Your task to perform on an android device: Open wifi settings Image 0: 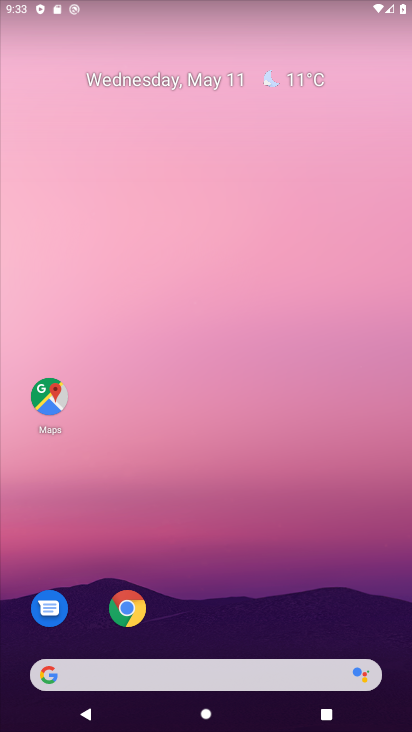
Step 0: drag from (205, 654) to (343, 160)
Your task to perform on an android device: Open wifi settings Image 1: 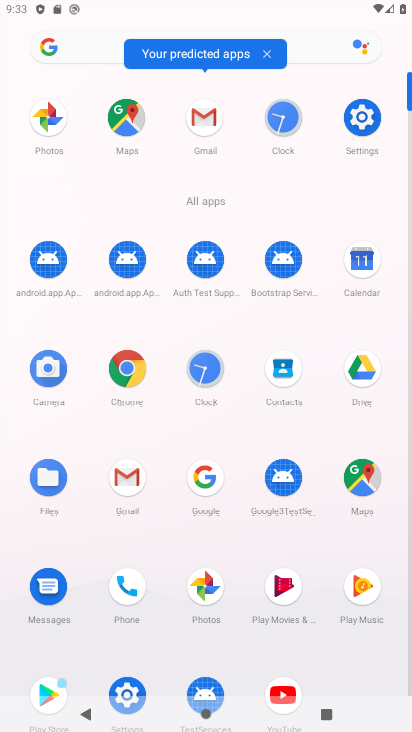
Step 1: drag from (152, 659) to (200, 508)
Your task to perform on an android device: Open wifi settings Image 2: 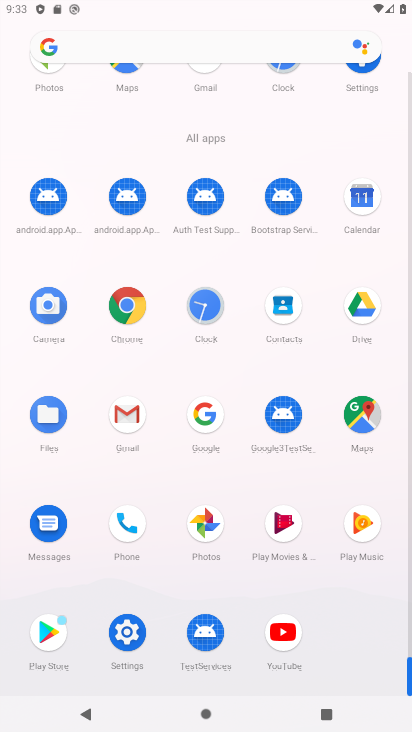
Step 2: click (129, 634)
Your task to perform on an android device: Open wifi settings Image 3: 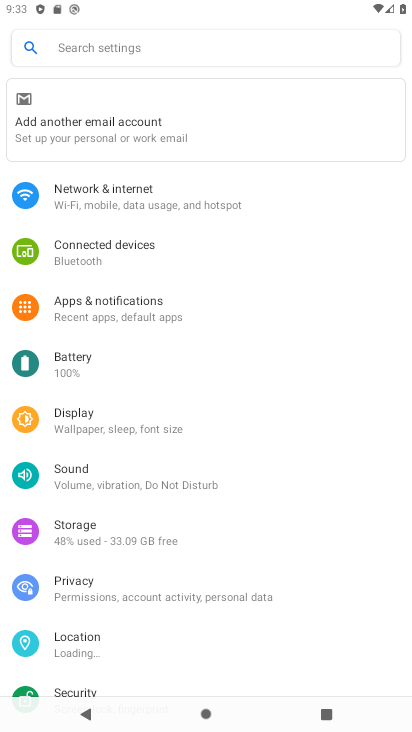
Step 3: click (202, 204)
Your task to perform on an android device: Open wifi settings Image 4: 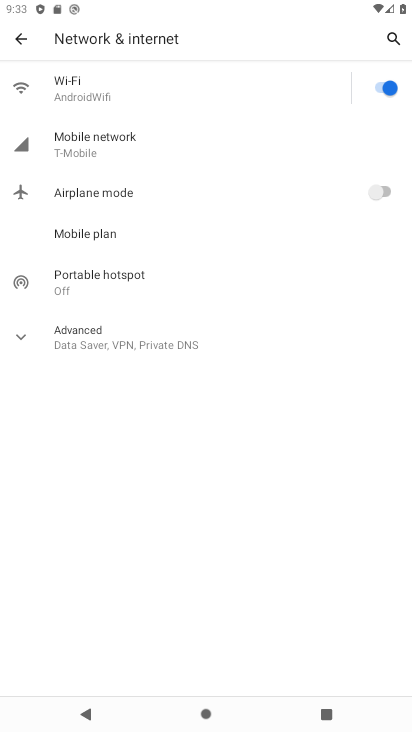
Step 4: click (141, 93)
Your task to perform on an android device: Open wifi settings Image 5: 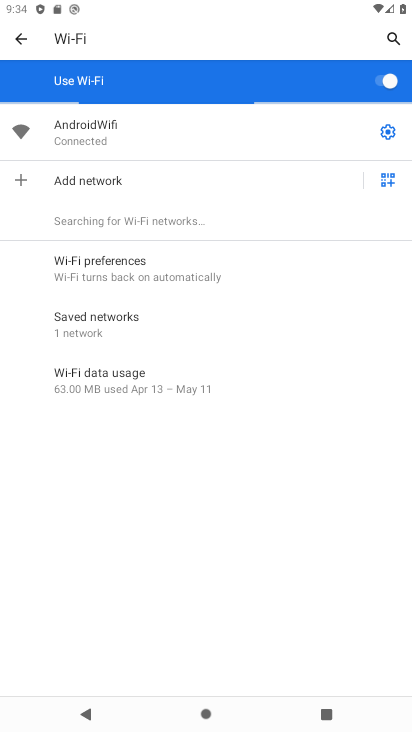
Step 5: task complete